Your task to perform on an android device: turn off location history Image 0: 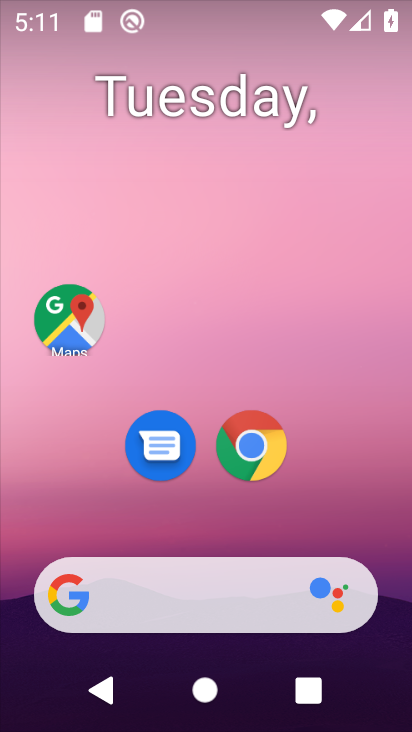
Step 0: drag from (249, 635) to (191, 151)
Your task to perform on an android device: turn off location history Image 1: 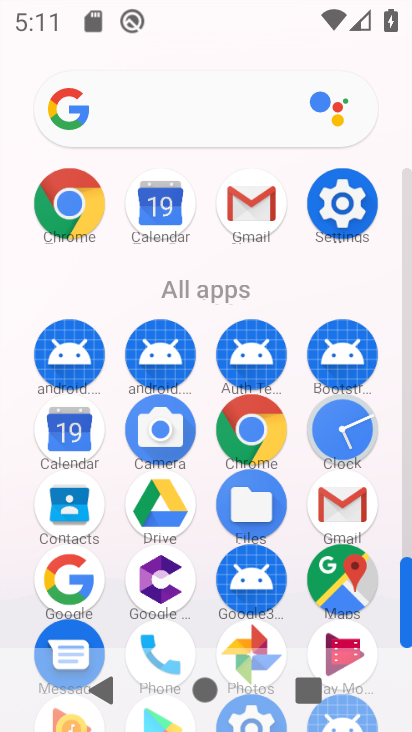
Step 1: click (344, 223)
Your task to perform on an android device: turn off location history Image 2: 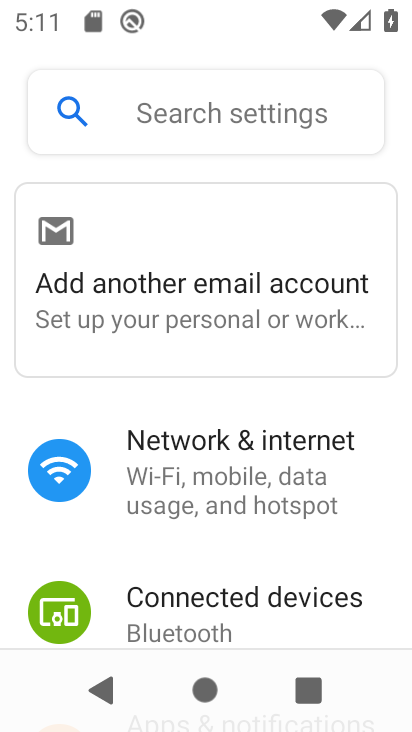
Step 2: drag from (156, 326) to (156, 101)
Your task to perform on an android device: turn off location history Image 3: 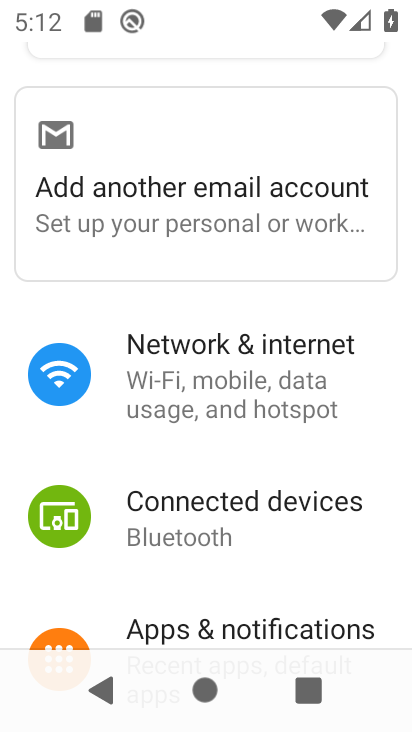
Step 3: drag from (205, 380) to (213, 189)
Your task to perform on an android device: turn off location history Image 4: 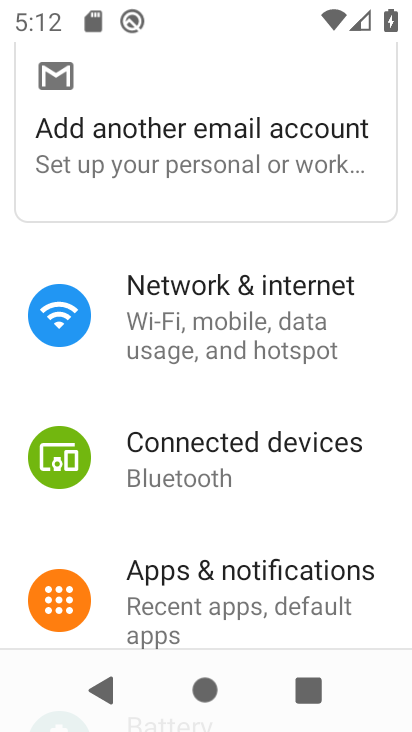
Step 4: drag from (188, 302) to (188, 83)
Your task to perform on an android device: turn off location history Image 5: 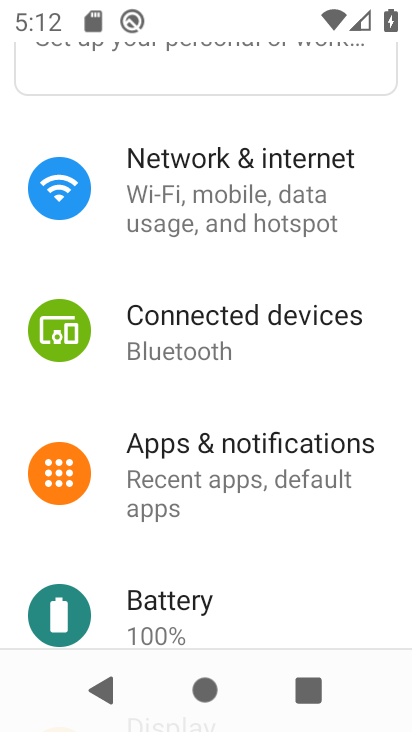
Step 5: drag from (247, 311) to (243, 167)
Your task to perform on an android device: turn off location history Image 6: 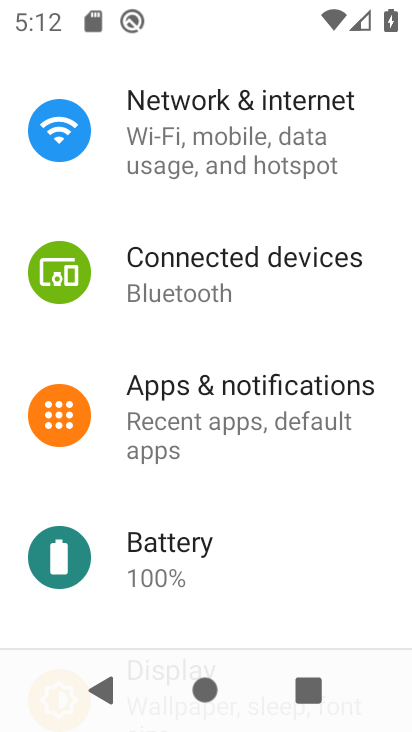
Step 6: drag from (224, 530) to (197, 113)
Your task to perform on an android device: turn off location history Image 7: 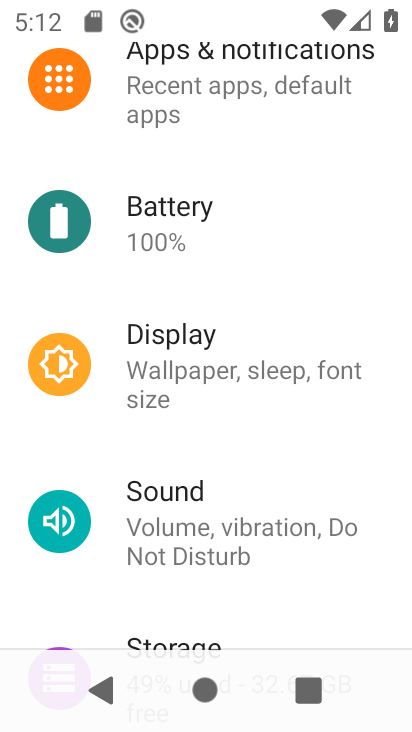
Step 7: drag from (200, 366) to (189, 147)
Your task to perform on an android device: turn off location history Image 8: 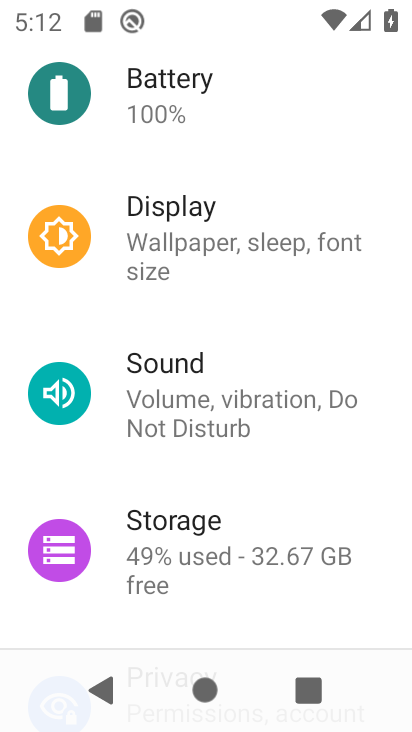
Step 8: drag from (158, 512) to (152, 173)
Your task to perform on an android device: turn off location history Image 9: 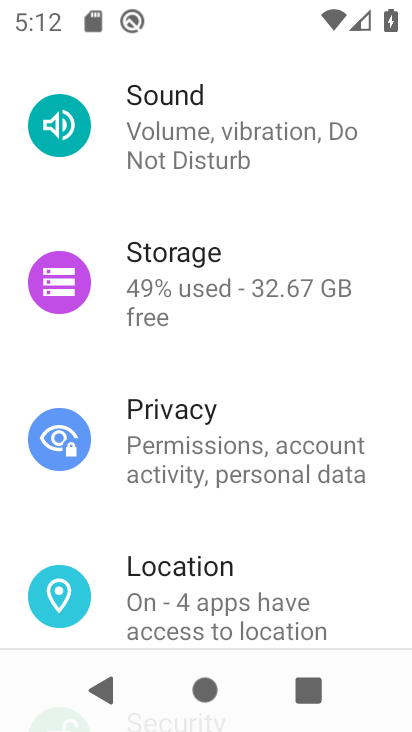
Step 9: click (158, 601)
Your task to perform on an android device: turn off location history Image 10: 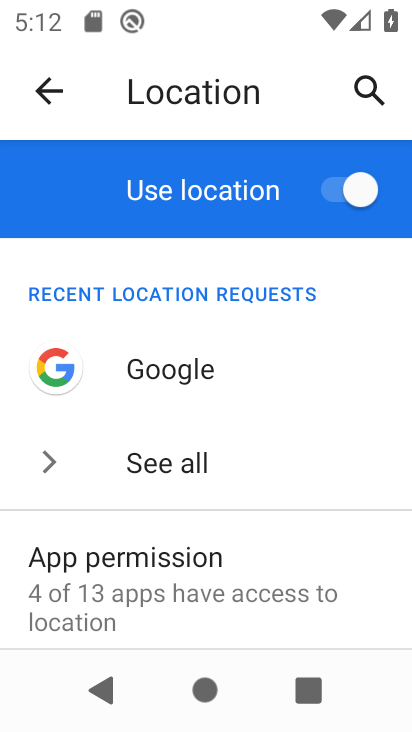
Step 10: drag from (171, 473) to (148, 240)
Your task to perform on an android device: turn off location history Image 11: 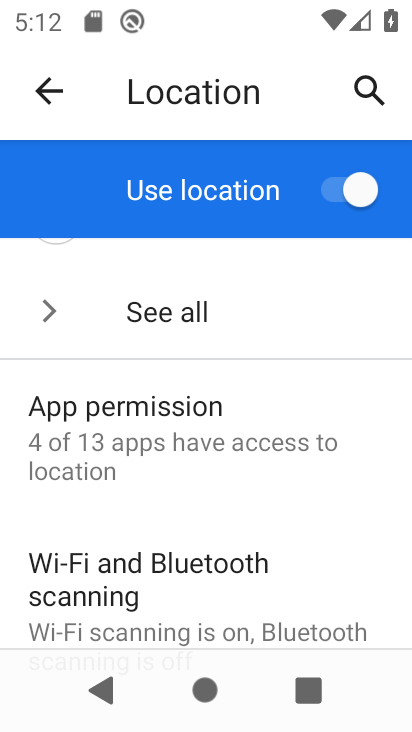
Step 11: drag from (158, 495) to (111, 159)
Your task to perform on an android device: turn off location history Image 12: 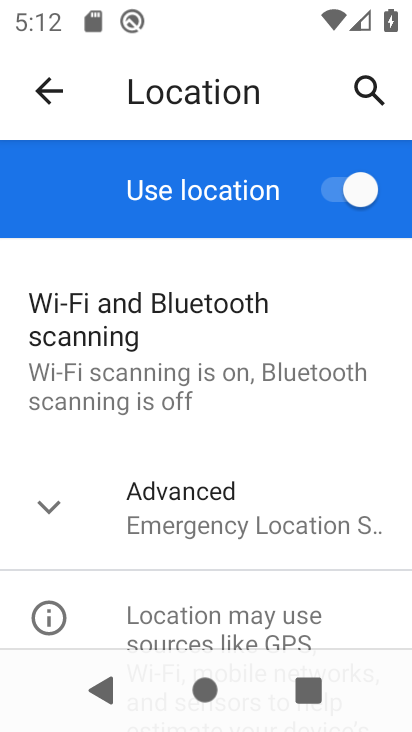
Step 12: click (144, 533)
Your task to perform on an android device: turn off location history Image 13: 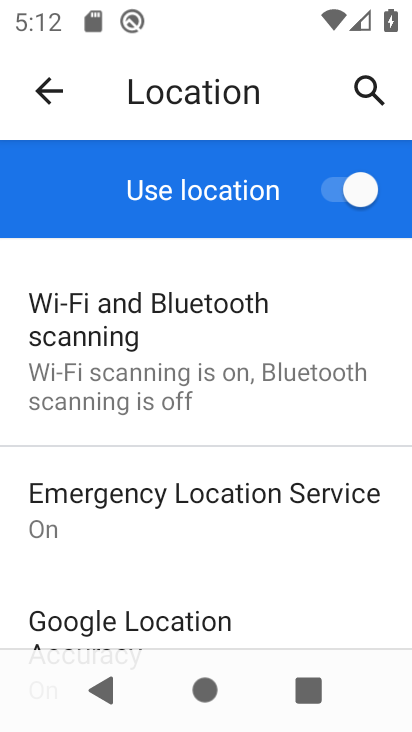
Step 13: click (112, 86)
Your task to perform on an android device: turn off location history Image 14: 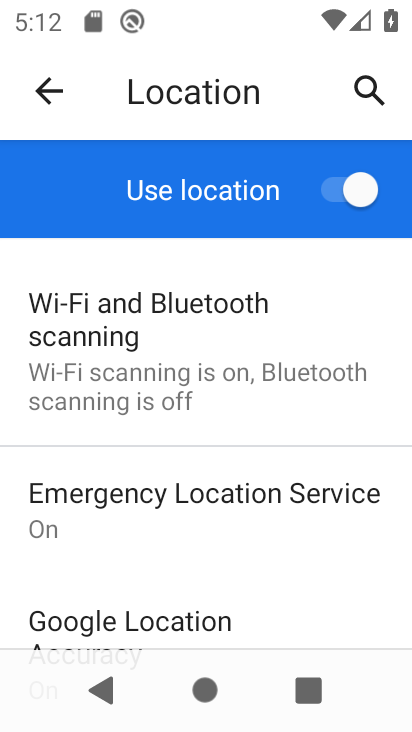
Step 14: task complete